Your task to perform on an android device: turn off airplane mode Image 0: 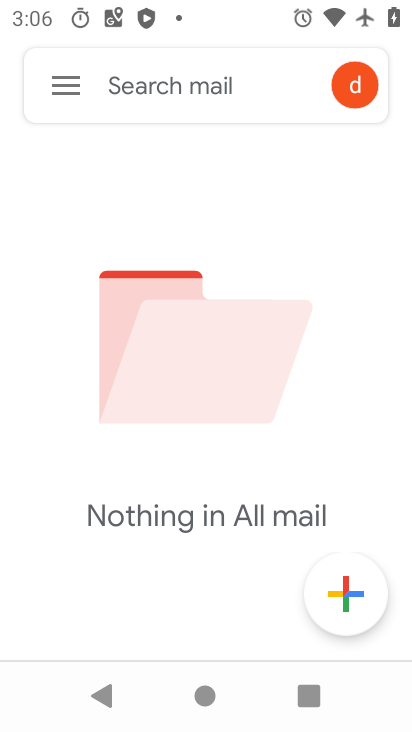
Step 0: press home button
Your task to perform on an android device: turn off airplane mode Image 1: 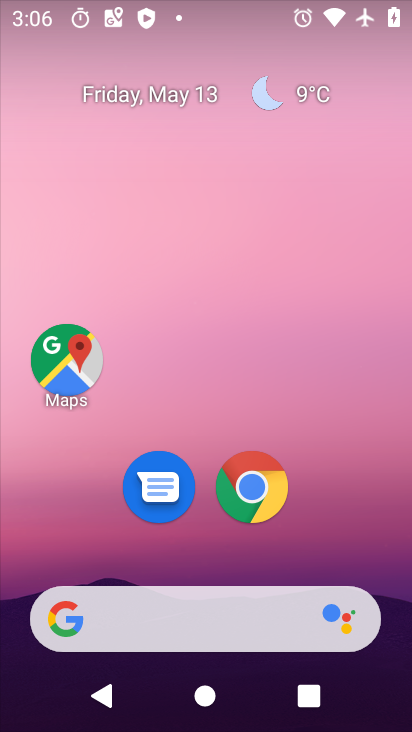
Step 1: drag from (223, 542) to (198, 40)
Your task to perform on an android device: turn off airplane mode Image 2: 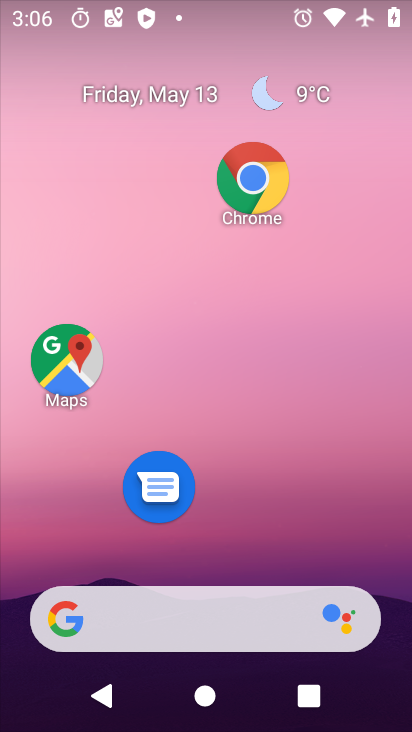
Step 2: drag from (243, 488) to (214, 119)
Your task to perform on an android device: turn off airplane mode Image 3: 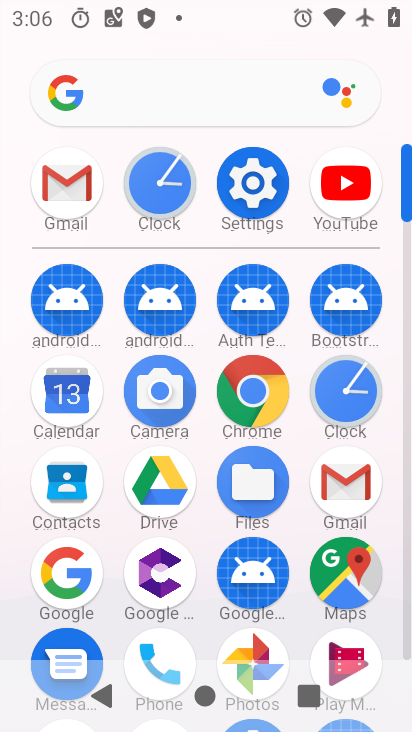
Step 3: click (253, 185)
Your task to perform on an android device: turn off airplane mode Image 4: 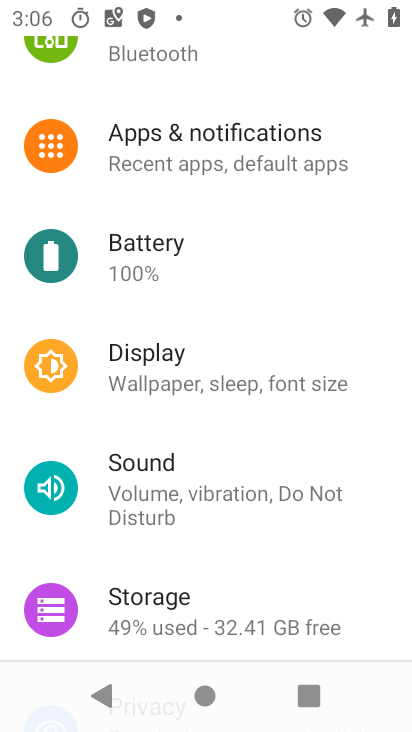
Step 4: drag from (209, 141) to (279, 683)
Your task to perform on an android device: turn off airplane mode Image 5: 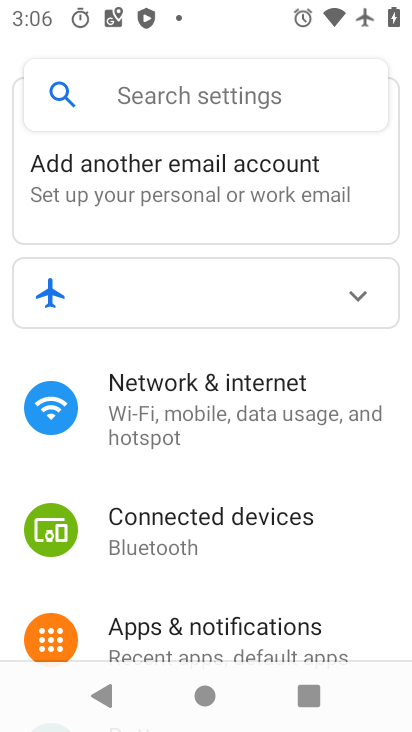
Step 5: click (230, 355)
Your task to perform on an android device: turn off airplane mode Image 6: 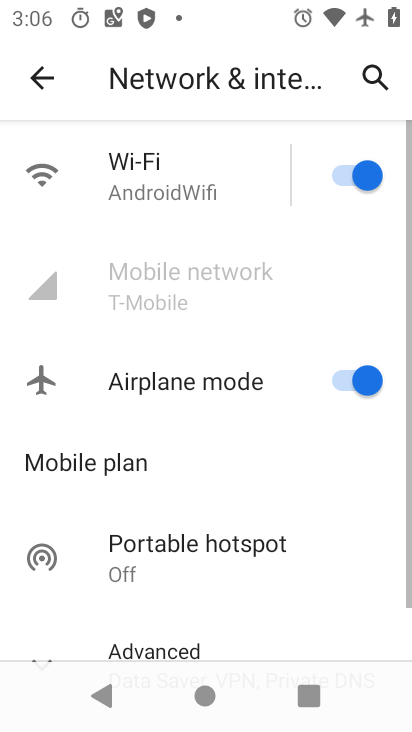
Step 6: click (357, 379)
Your task to perform on an android device: turn off airplane mode Image 7: 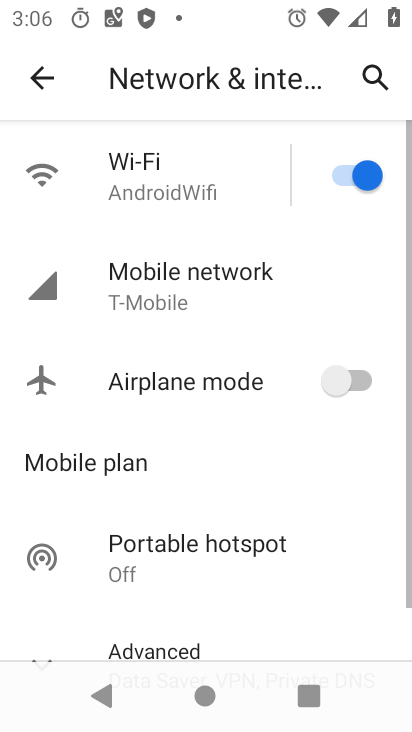
Step 7: task complete